Your task to perform on an android device: Open sound settings Image 0: 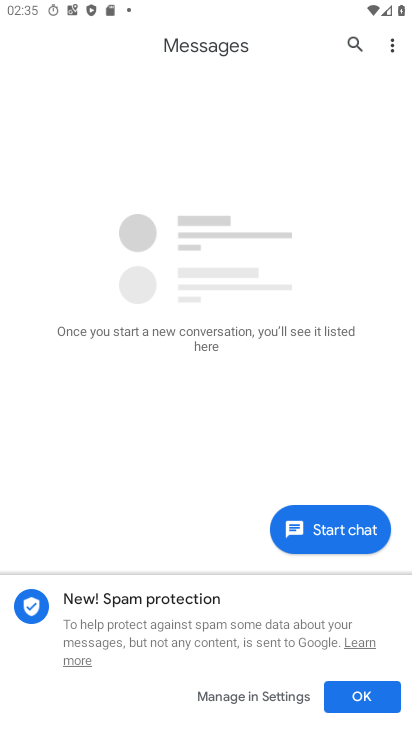
Step 0: press home button
Your task to perform on an android device: Open sound settings Image 1: 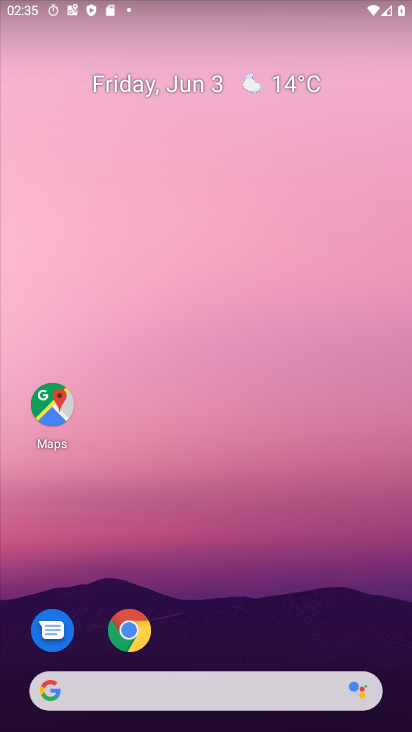
Step 1: drag from (393, 706) to (366, 45)
Your task to perform on an android device: Open sound settings Image 2: 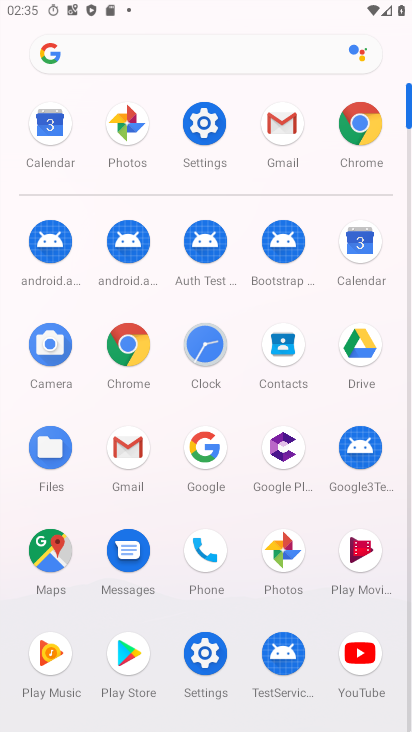
Step 2: click (209, 126)
Your task to perform on an android device: Open sound settings Image 3: 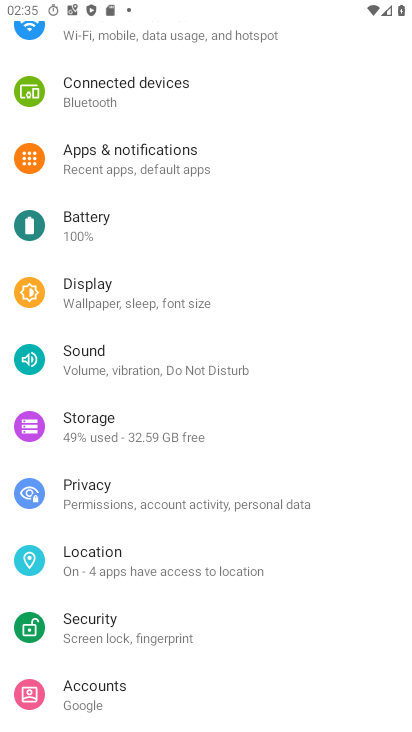
Step 3: click (81, 358)
Your task to perform on an android device: Open sound settings Image 4: 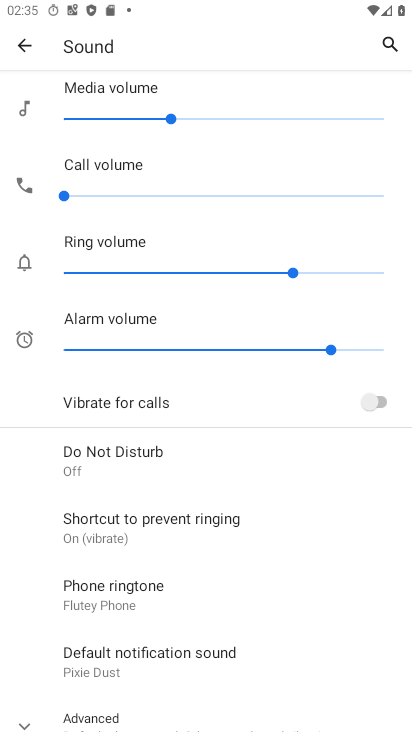
Step 4: task complete